Your task to perform on an android device: delete browsing data in the chrome app Image 0: 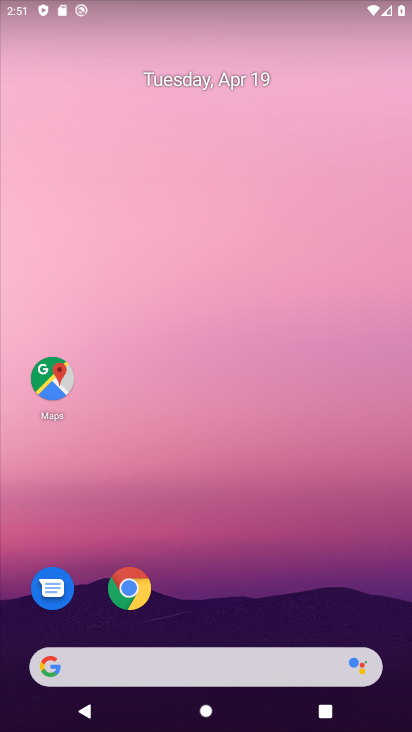
Step 0: click (252, 207)
Your task to perform on an android device: delete browsing data in the chrome app Image 1: 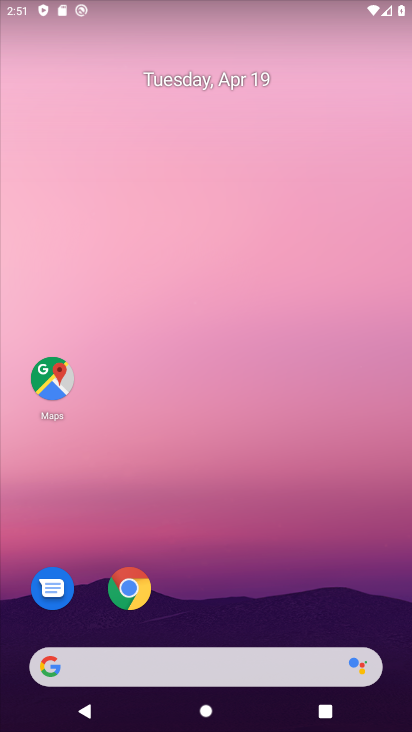
Step 1: drag from (191, 635) to (244, 144)
Your task to perform on an android device: delete browsing data in the chrome app Image 2: 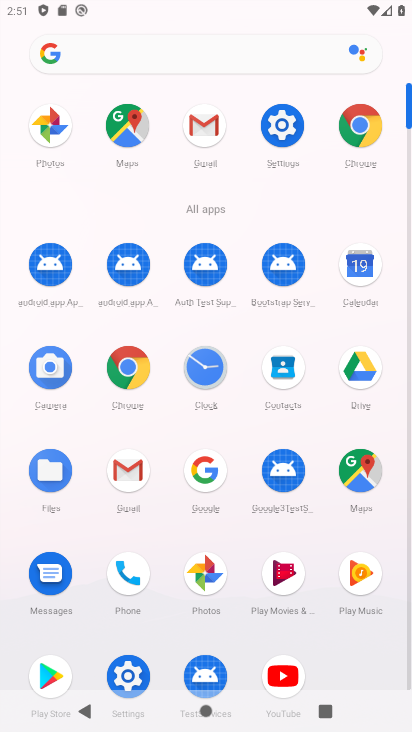
Step 2: click (124, 350)
Your task to perform on an android device: delete browsing data in the chrome app Image 3: 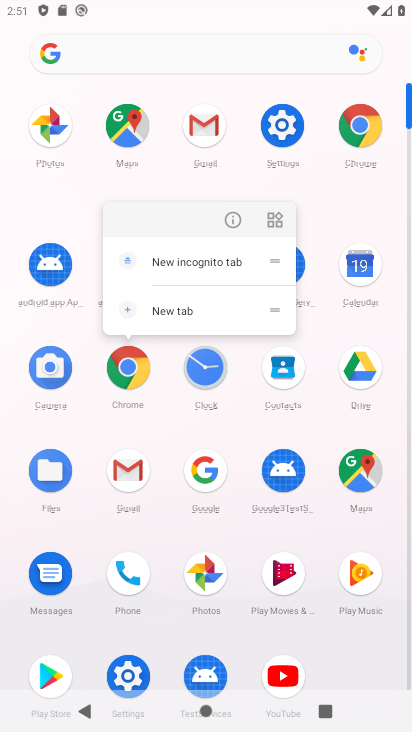
Step 3: click (235, 222)
Your task to perform on an android device: delete browsing data in the chrome app Image 4: 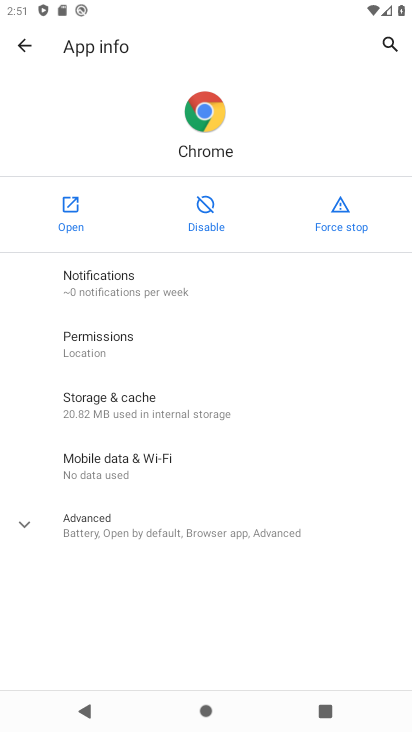
Step 4: click (75, 211)
Your task to perform on an android device: delete browsing data in the chrome app Image 5: 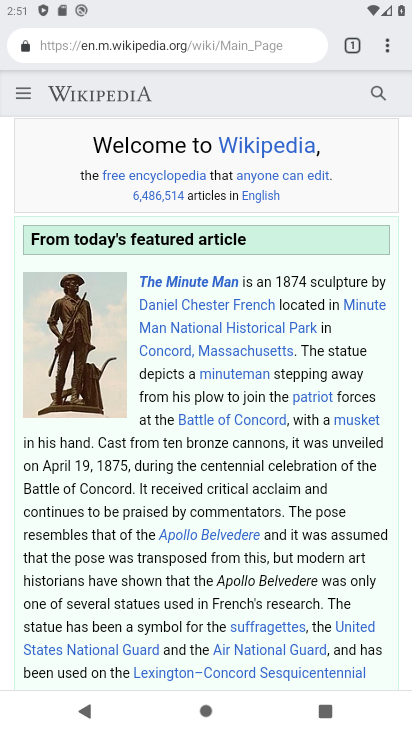
Step 5: drag from (387, 46) to (271, 263)
Your task to perform on an android device: delete browsing data in the chrome app Image 6: 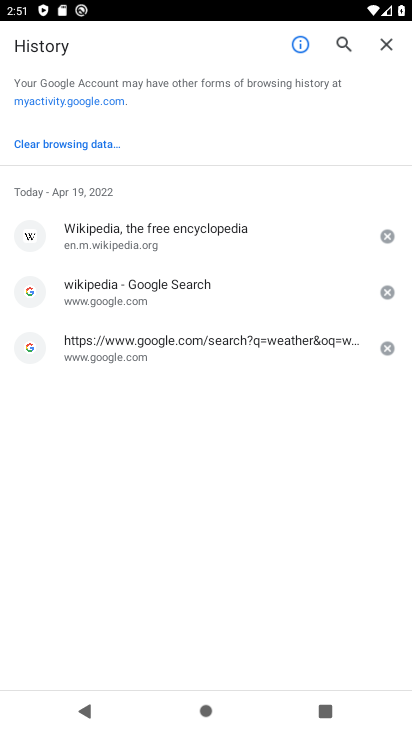
Step 6: click (74, 147)
Your task to perform on an android device: delete browsing data in the chrome app Image 7: 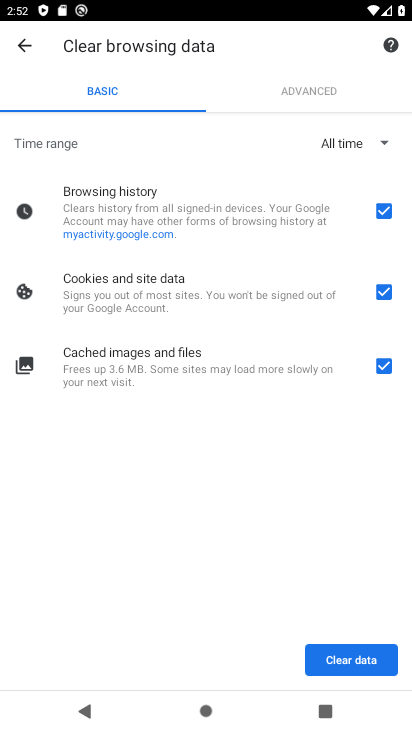
Step 7: click (349, 645)
Your task to perform on an android device: delete browsing data in the chrome app Image 8: 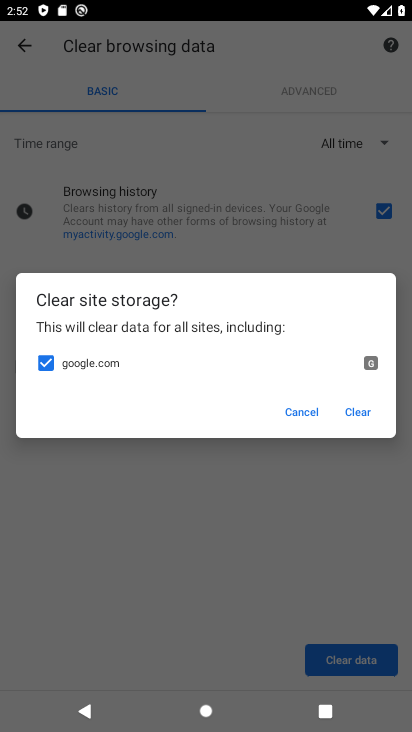
Step 8: click (347, 409)
Your task to perform on an android device: delete browsing data in the chrome app Image 9: 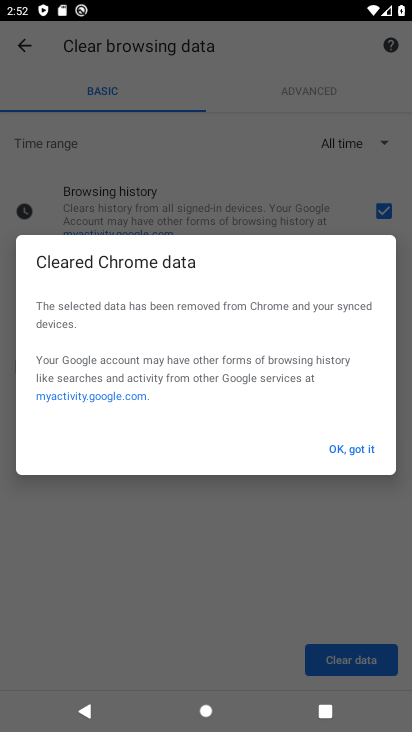
Step 9: click (360, 453)
Your task to perform on an android device: delete browsing data in the chrome app Image 10: 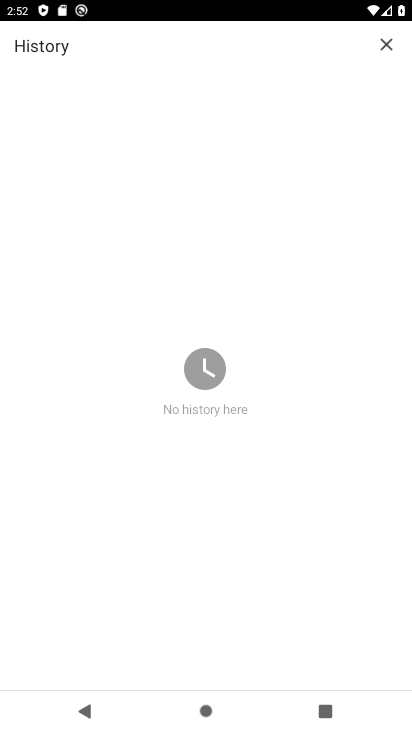
Step 10: task complete